Your task to perform on an android device: Open Youtube and go to "Your channel" Image 0: 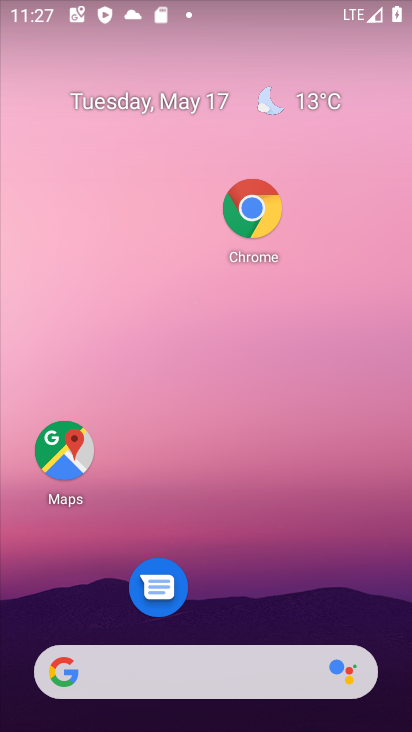
Step 0: drag from (275, 597) to (249, 453)
Your task to perform on an android device: Open Youtube and go to "Your channel" Image 1: 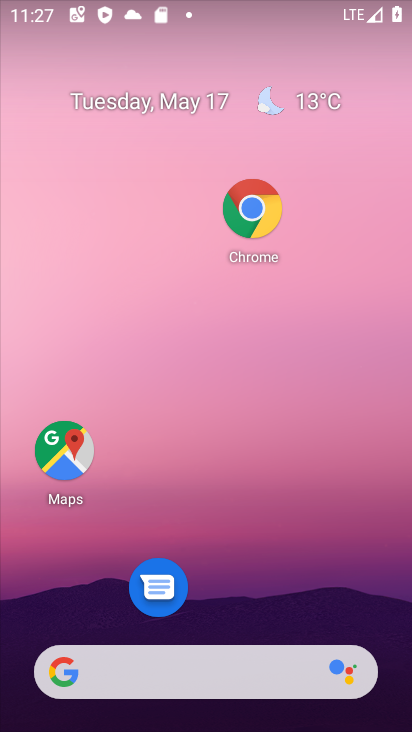
Step 1: drag from (250, 584) to (236, 191)
Your task to perform on an android device: Open Youtube and go to "Your channel" Image 2: 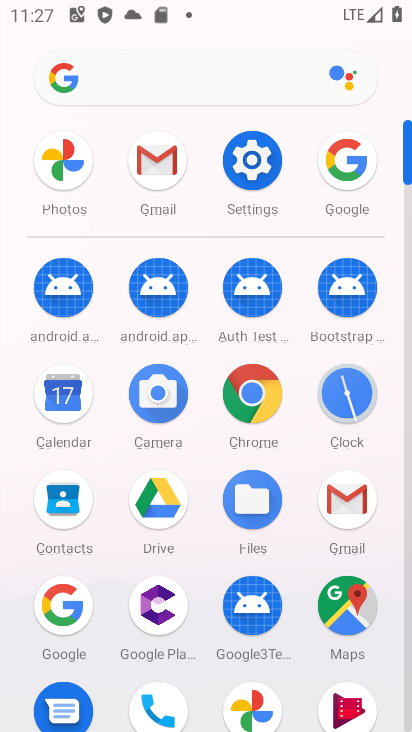
Step 2: drag from (298, 524) to (282, 327)
Your task to perform on an android device: Open Youtube and go to "Your channel" Image 3: 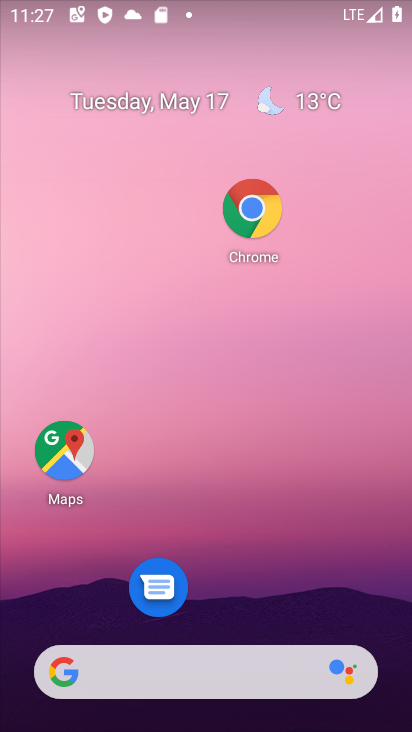
Step 3: drag from (289, 611) to (296, 298)
Your task to perform on an android device: Open Youtube and go to "Your channel" Image 4: 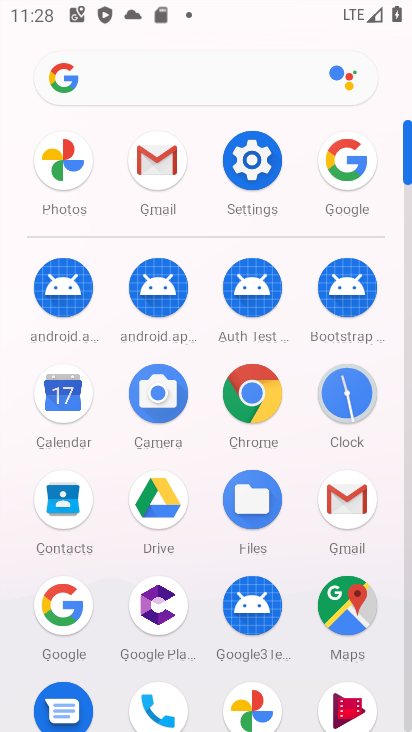
Step 4: drag from (271, 544) to (262, 314)
Your task to perform on an android device: Open Youtube and go to "Your channel" Image 5: 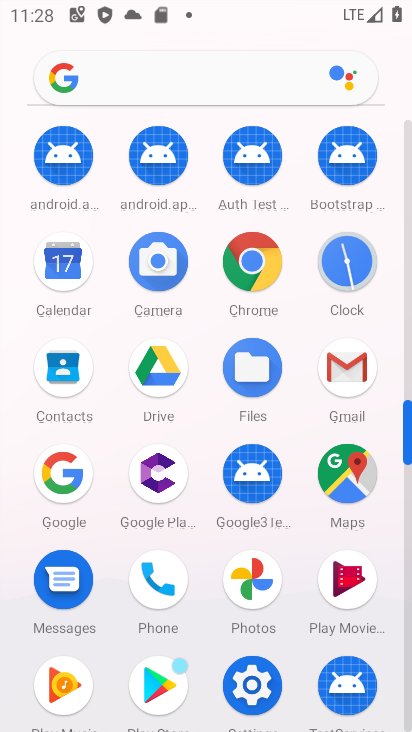
Step 5: drag from (298, 582) to (312, 329)
Your task to perform on an android device: Open Youtube and go to "Your channel" Image 6: 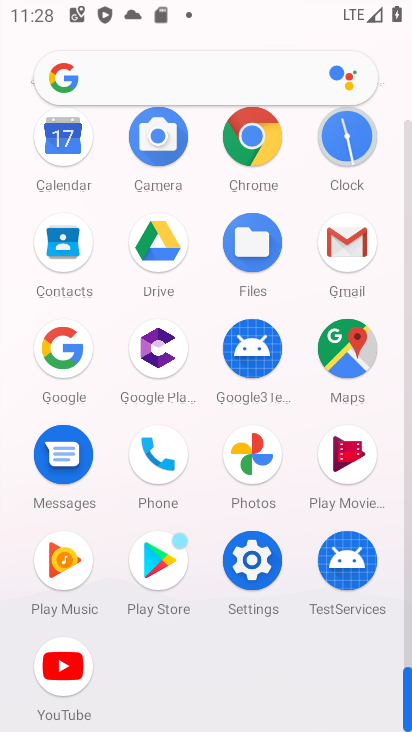
Step 6: click (67, 659)
Your task to perform on an android device: Open Youtube and go to "Your channel" Image 7: 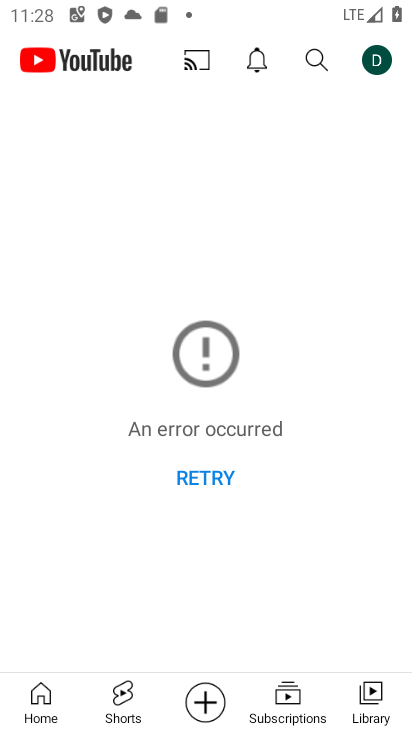
Step 7: click (378, 66)
Your task to perform on an android device: Open Youtube and go to "Your channel" Image 8: 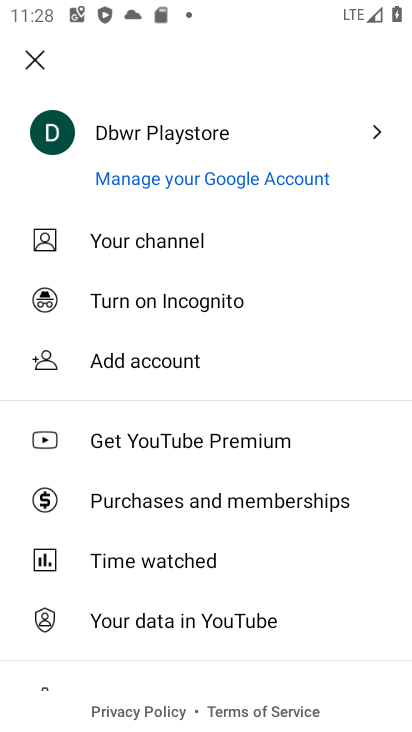
Step 8: click (177, 239)
Your task to perform on an android device: Open Youtube and go to "Your channel" Image 9: 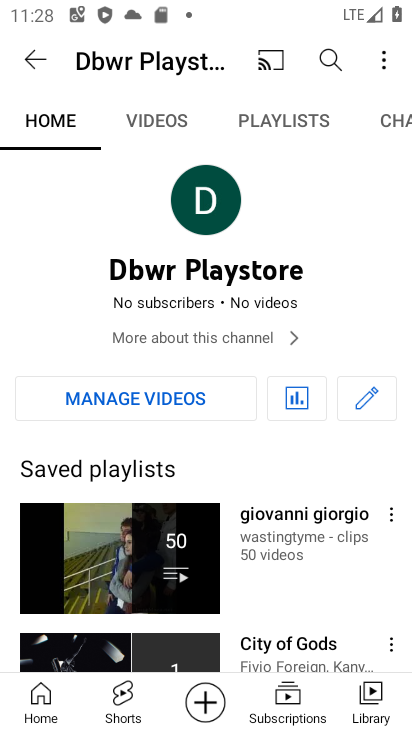
Step 9: task complete